Your task to perform on an android device: install app "eBay: The shopping marketplace" Image 0: 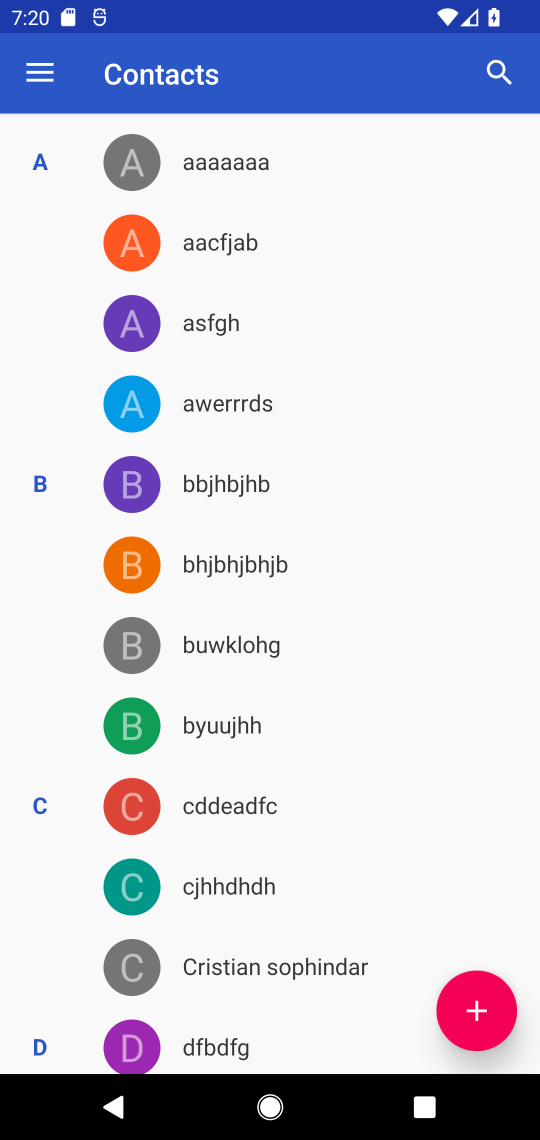
Step 0: press home button
Your task to perform on an android device: install app "eBay: The shopping marketplace" Image 1: 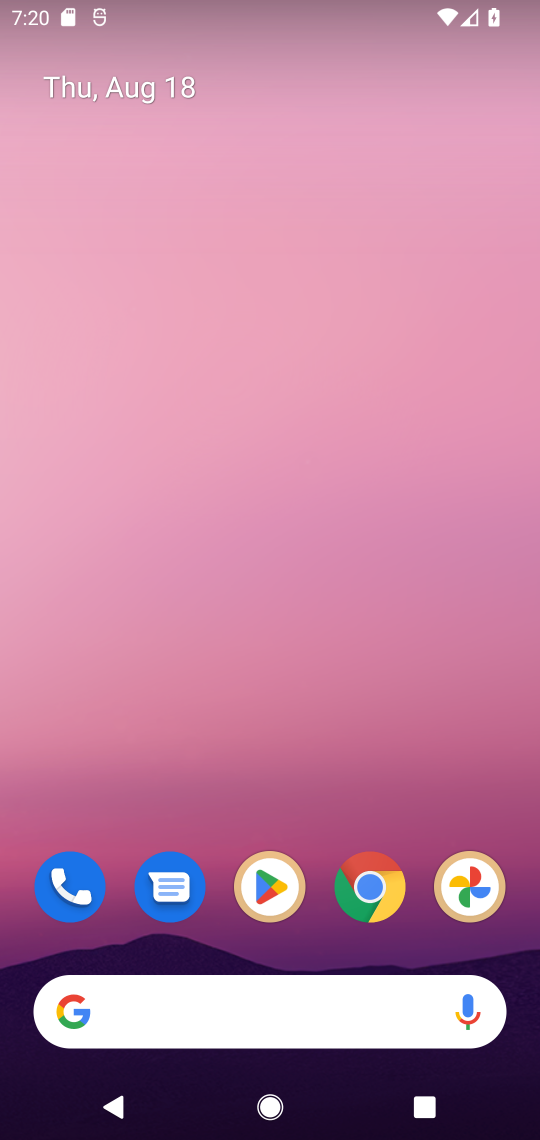
Step 1: click (264, 899)
Your task to perform on an android device: install app "eBay: The shopping marketplace" Image 2: 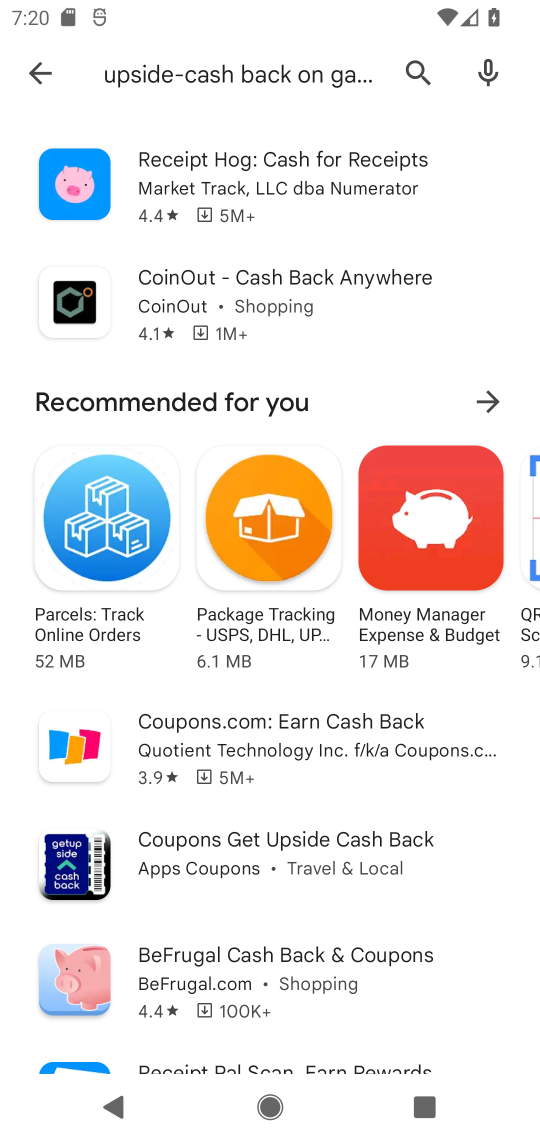
Step 2: click (415, 68)
Your task to perform on an android device: install app "eBay: The shopping marketplace" Image 3: 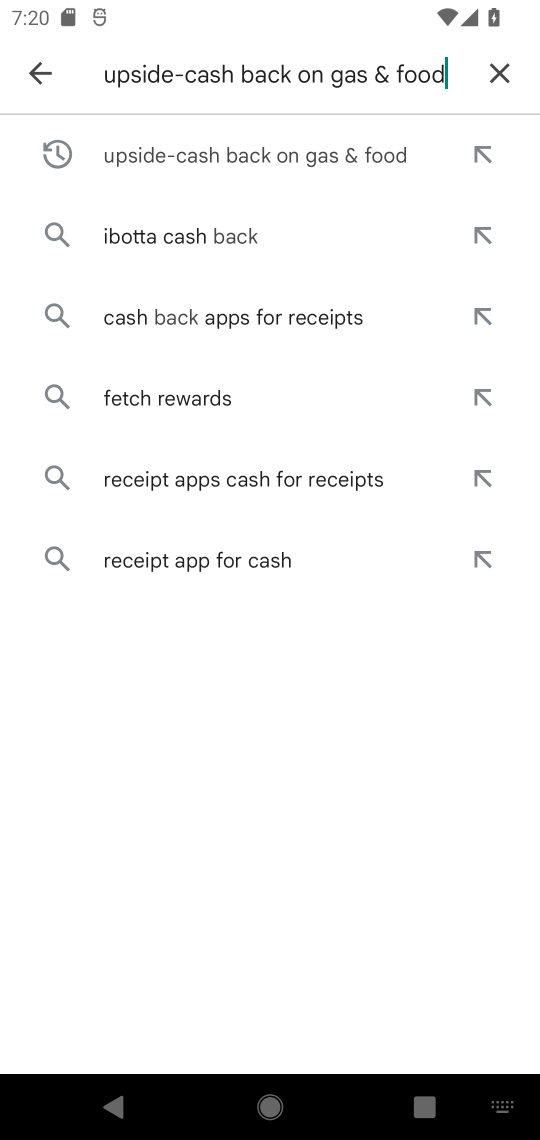
Step 3: click (498, 65)
Your task to perform on an android device: install app "eBay: The shopping marketplace" Image 4: 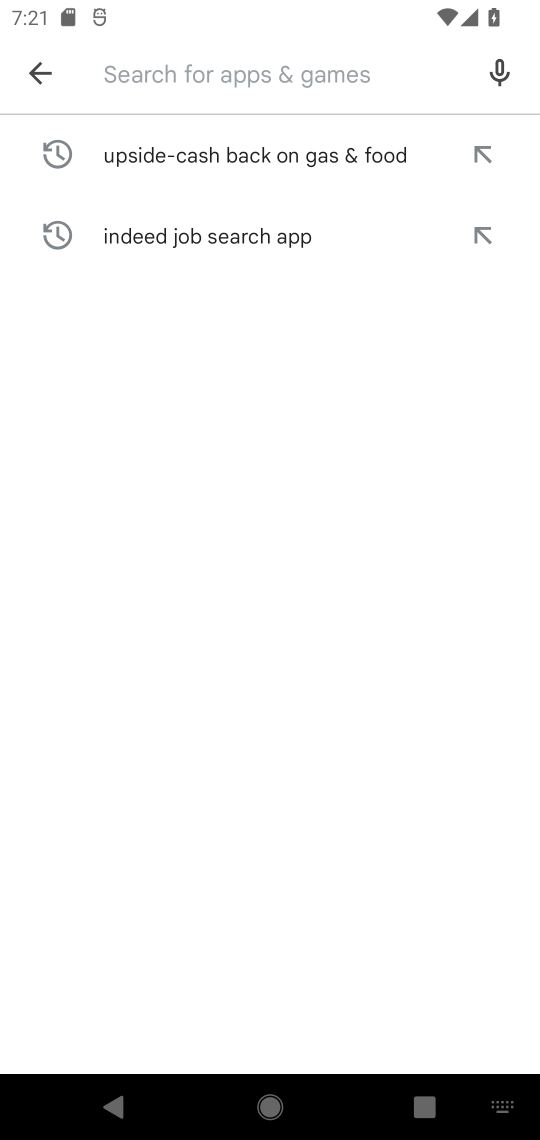
Step 4: type "eBay: The shopping marketplace"
Your task to perform on an android device: install app "eBay: The shopping marketplace" Image 5: 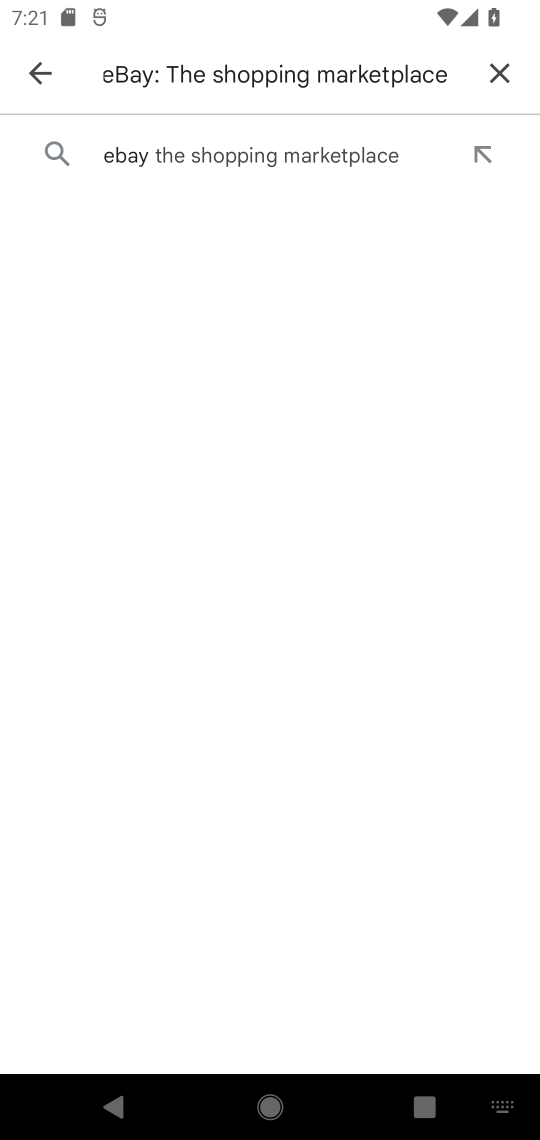
Step 5: click (289, 160)
Your task to perform on an android device: install app "eBay: The shopping marketplace" Image 6: 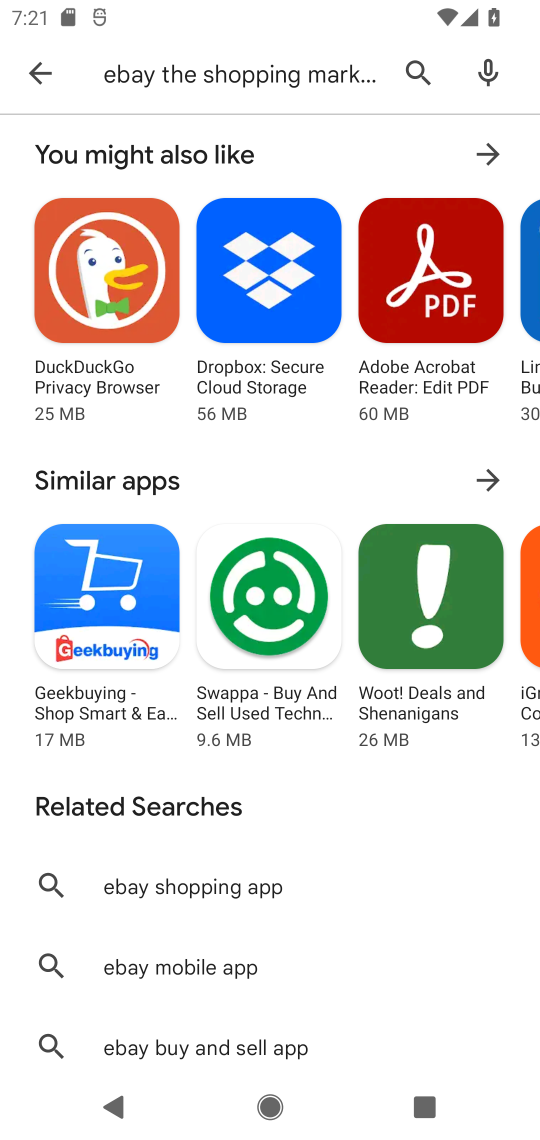
Step 6: click (197, 877)
Your task to perform on an android device: install app "eBay: The shopping marketplace" Image 7: 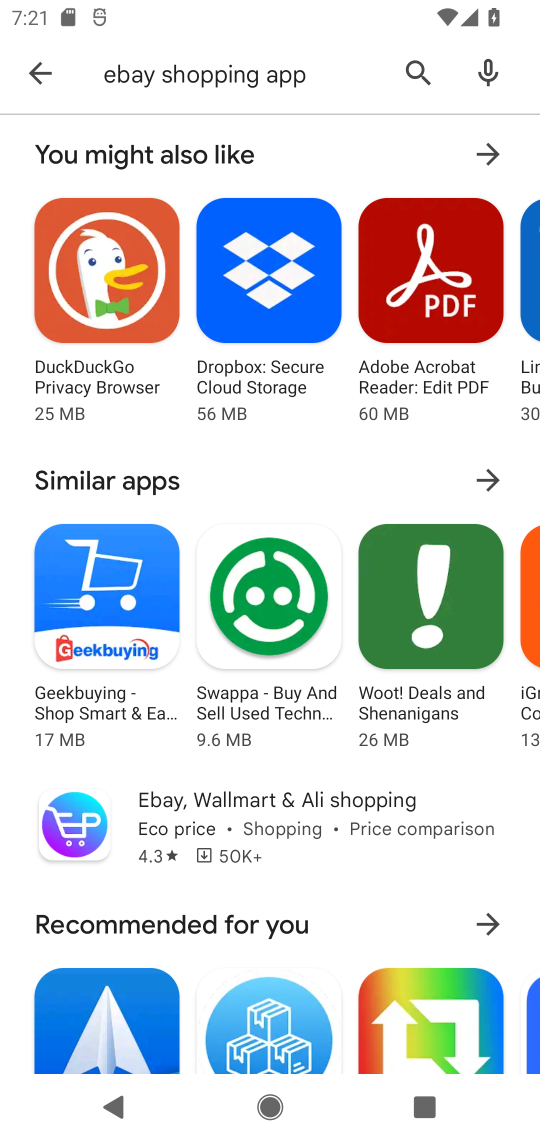
Step 7: task complete